Your task to perform on an android device: Open Yahoo.com Image 0: 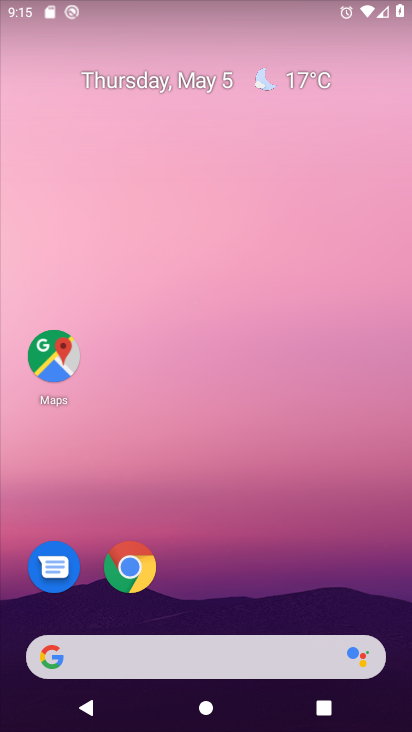
Step 0: click (255, 663)
Your task to perform on an android device: Open Yahoo.com Image 1: 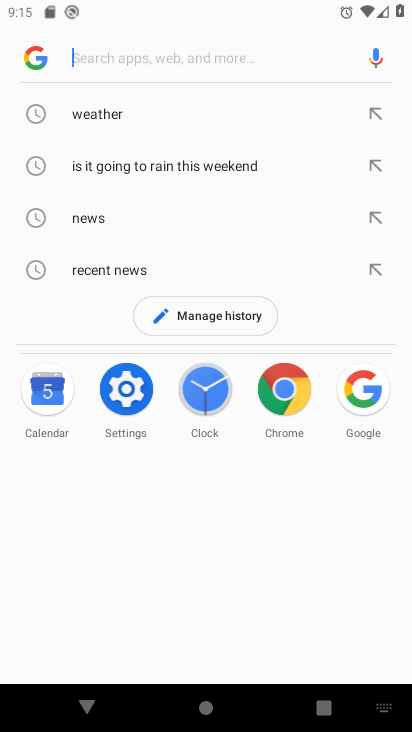
Step 1: type "yahoo.com"
Your task to perform on an android device: Open Yahoo.com Image 2: 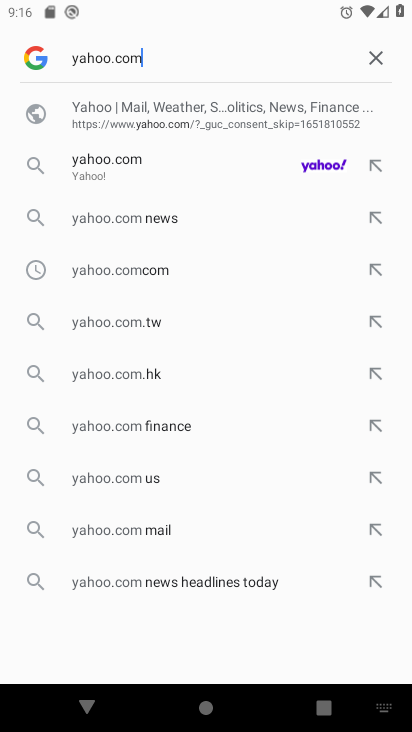
Step 2: click (129, 162)
Your task to perform on an android device: Open Yahoo.com Image 3: 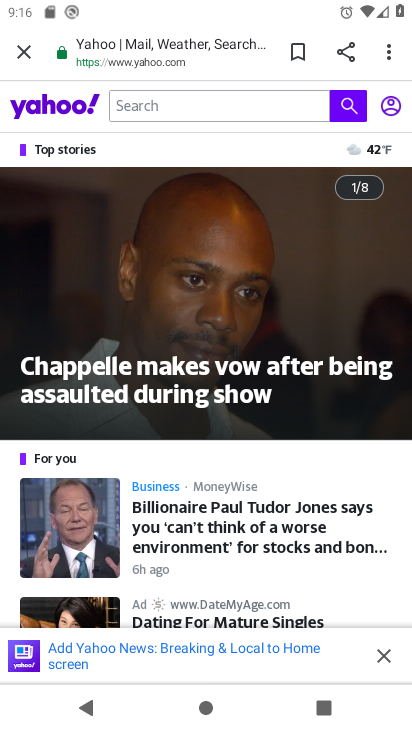
Step 3: task complete